Your task to perform on an android device: Go to Reddit.com Image 0: 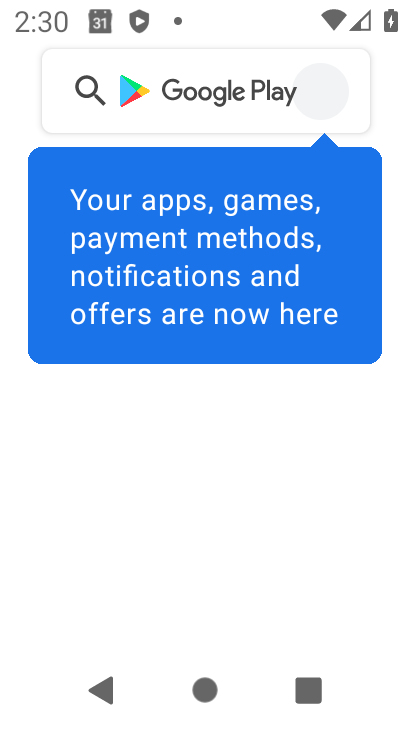
Step 0: press home button
Your task to perform on an android device: Go to Reddit.com Image 1: 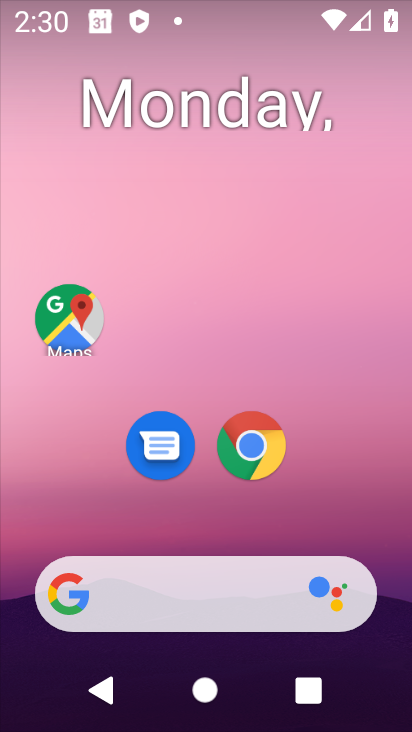
Step 1: click (267, 458)
Your task to perform on an android device: Go to Reddit.com Image 2: 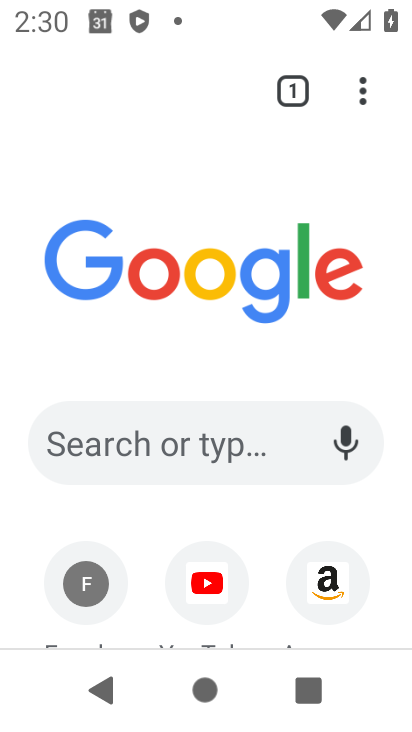
Step 2: click (147, 440)
Your task to perform on an android device: Go to Reddit.com Image 3: 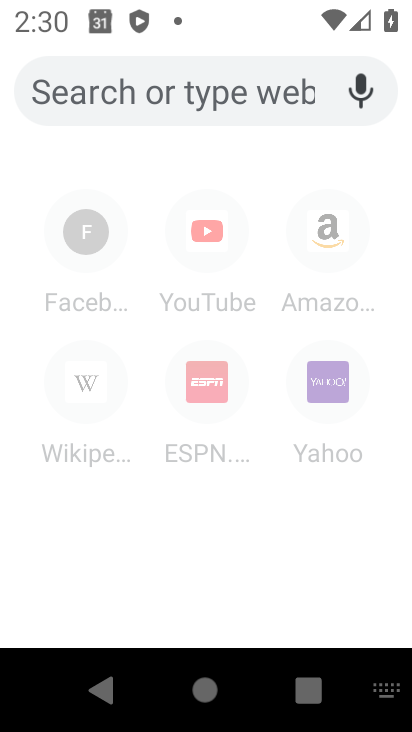
Step 3: type "Reddit.com"
Your task to perform on an android device: Go to Reddit.com Image 4: 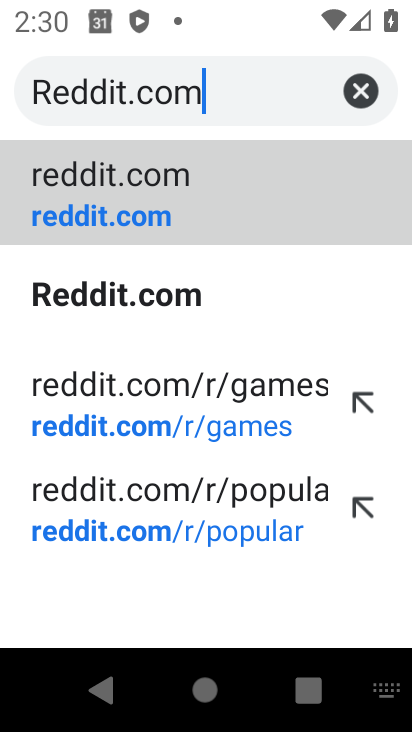
Step 4: click (127, 228)
Your task to perform on an android device: Go to Reddit.com Image 5: 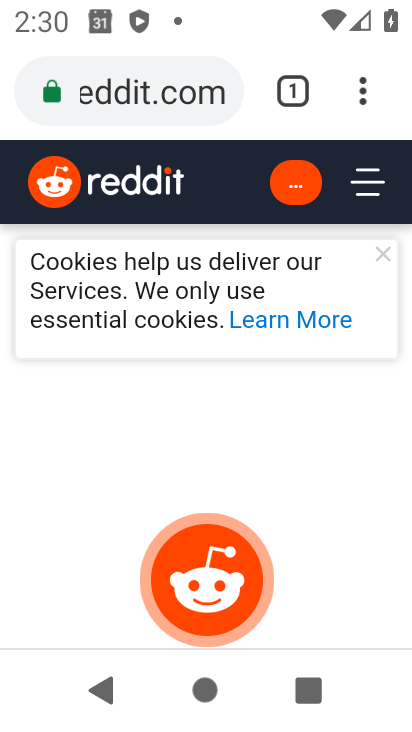
Step 5: task complete